Your task to perform on an android device: turn off improve location accuracy Image 0: 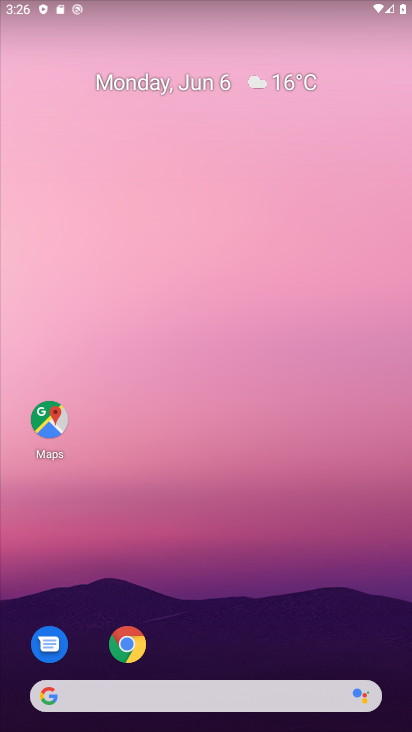
Step 0: drag from (174, 454) to (177, 84)
Your task to perform on an android device: turn off improve location accuracy Image 1: 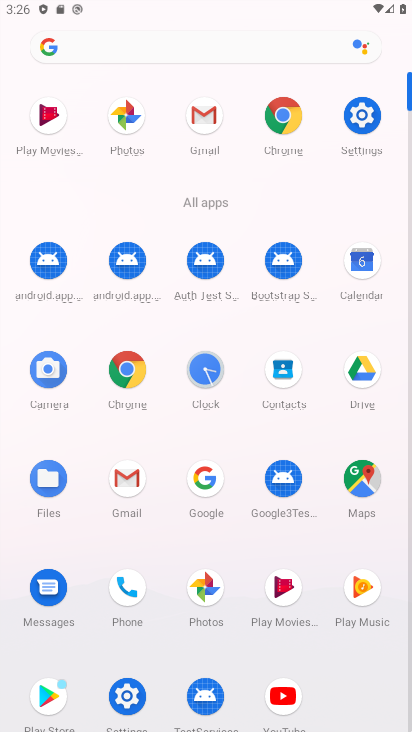
Step 1: click (355, 119)
Your task to perform on an android device: turn off improve location accuracy Image 2: 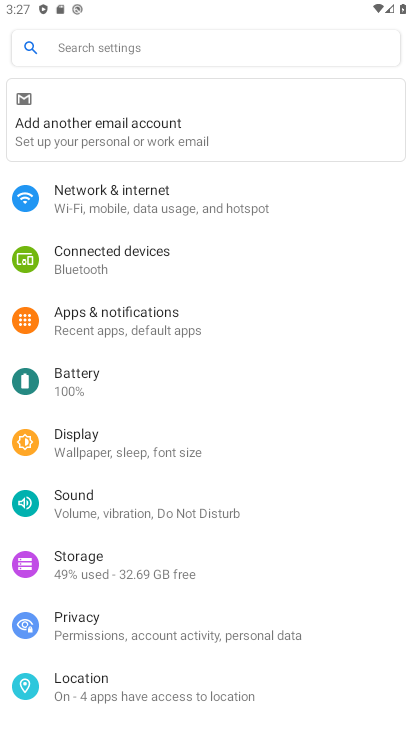
Step 2: click (83, 700)
Your task to perform on an android device: turn off improve location accuracy Image 3: 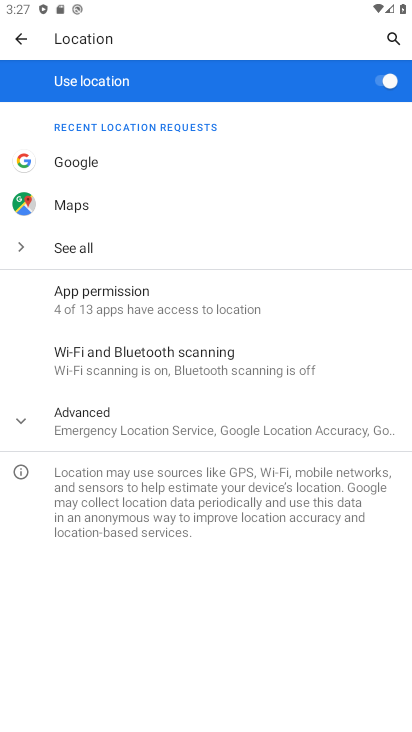
Step 3: click (131, 438)
Your task to perform on an android device: turn off improve location accuracy Image 4: 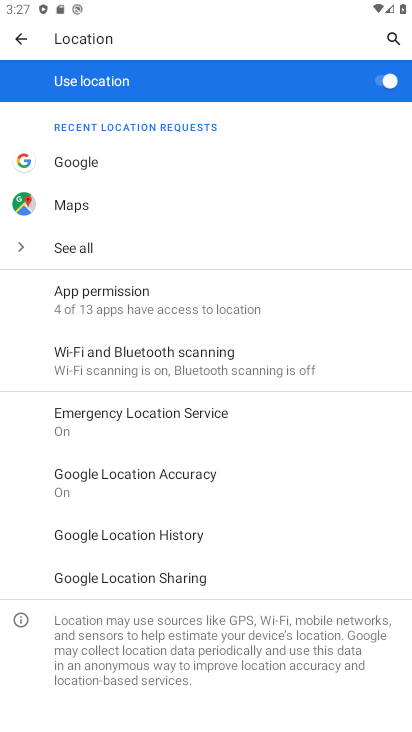
Step 4: click (170, 479)
Your task to perform on an android device: turn off improve location accuracy Image 5: 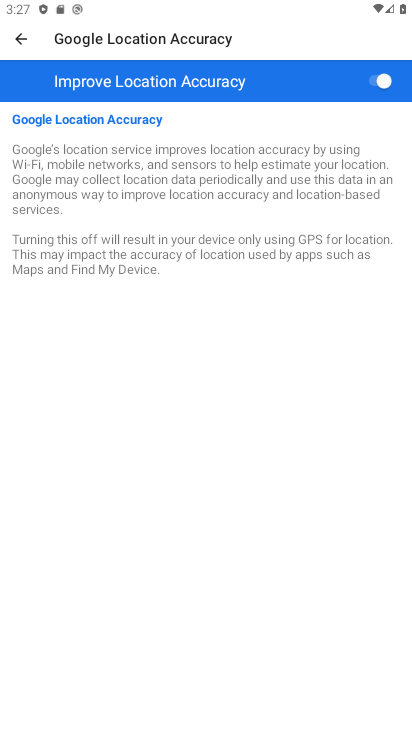
Step 5: click (389, 85)
Your task to perform on an android device: turn off improve location accuracy Image 6: 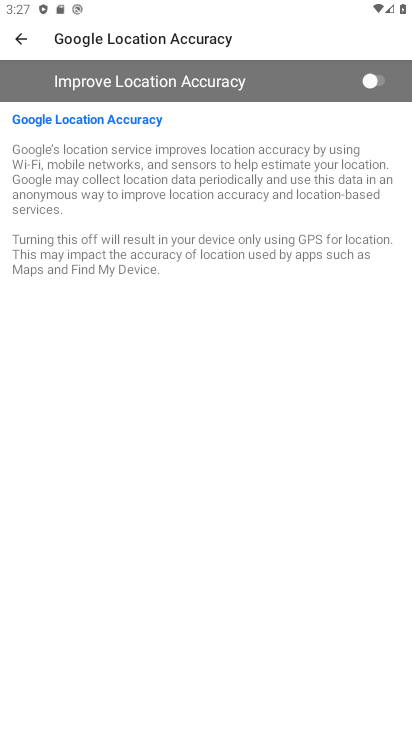
Step 6: task complete